Your task to perform on an android device: install app "Mercado Libre" Image 0: 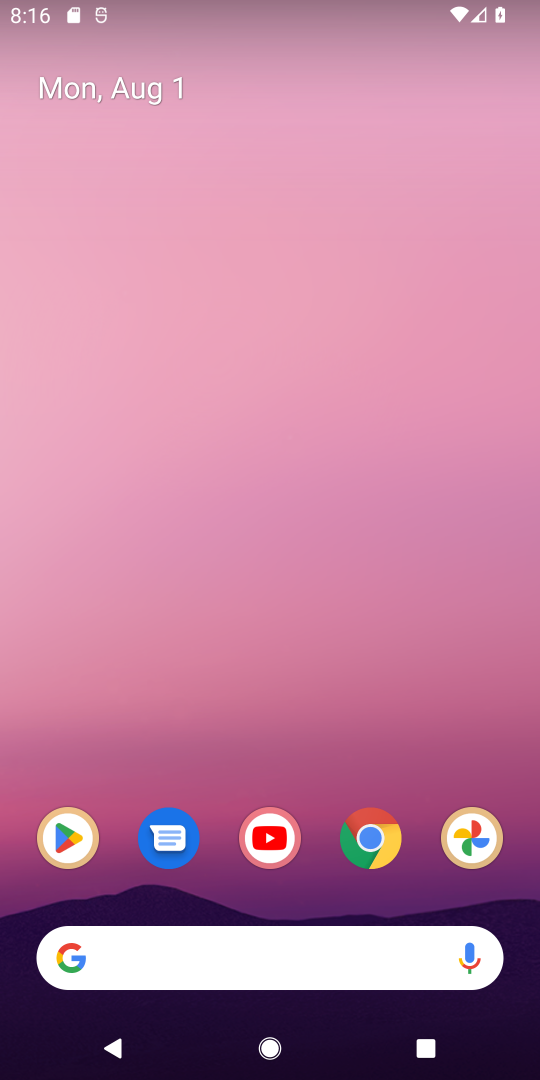
Step 0: press home button
Your task to perform on an android device: install app "Mercado Libre" Image 1: 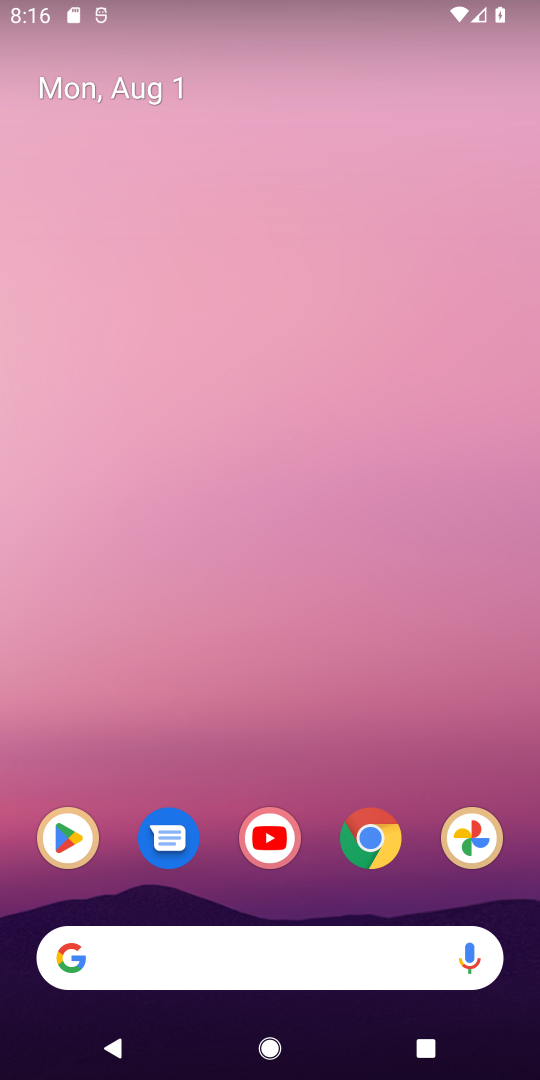
Step 1: click (80, 837)
Your task to perform on an android device: install app "Mercado Libre" Image 2: 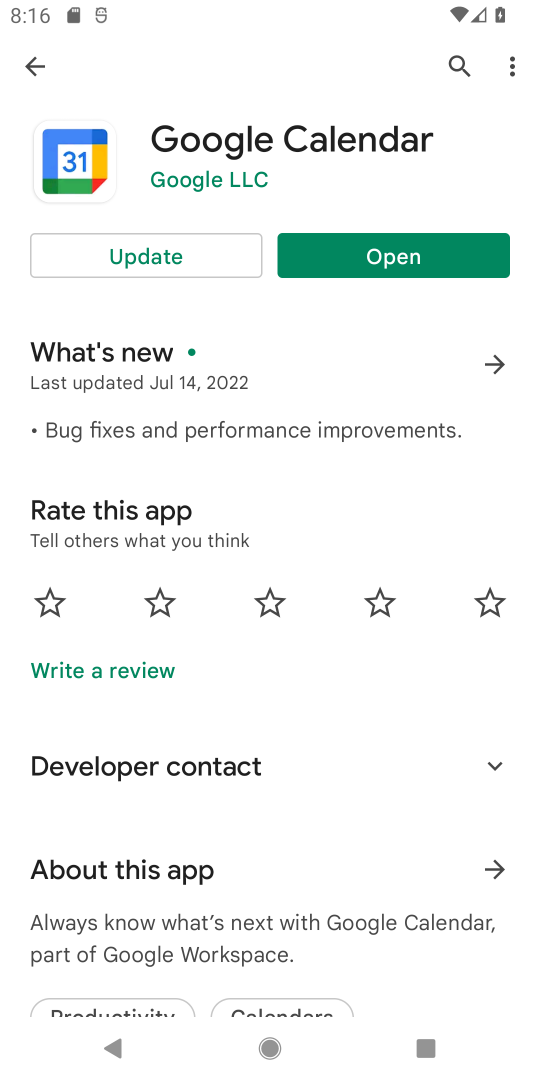
Step 2: click (434, 67)
Your task to perform on an android device: install app "Mercado Libre" Image 3: 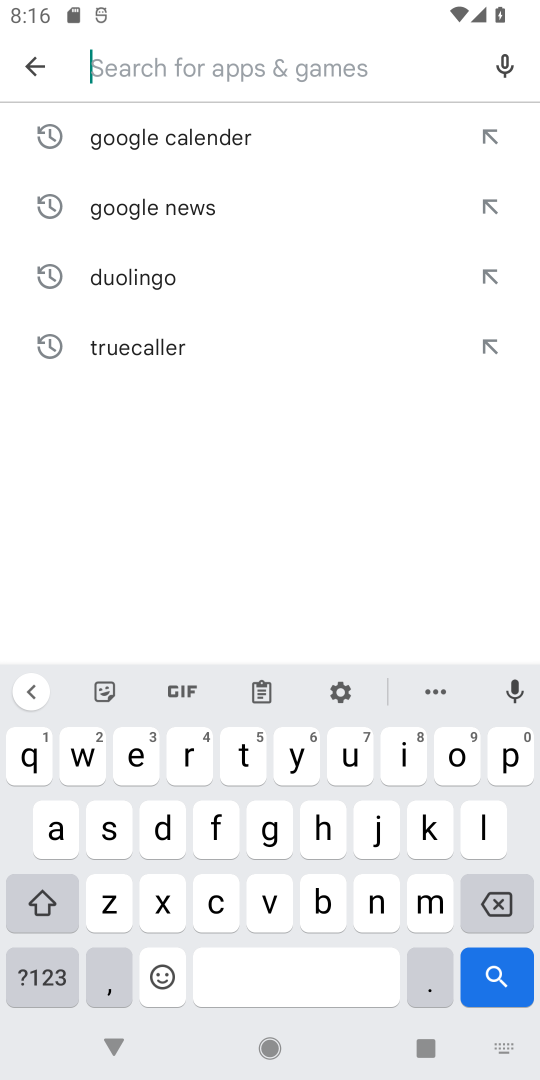
Step 3: type "mercado"
Your task to perform on an android device: install app "Mercado Libre" Image 4: 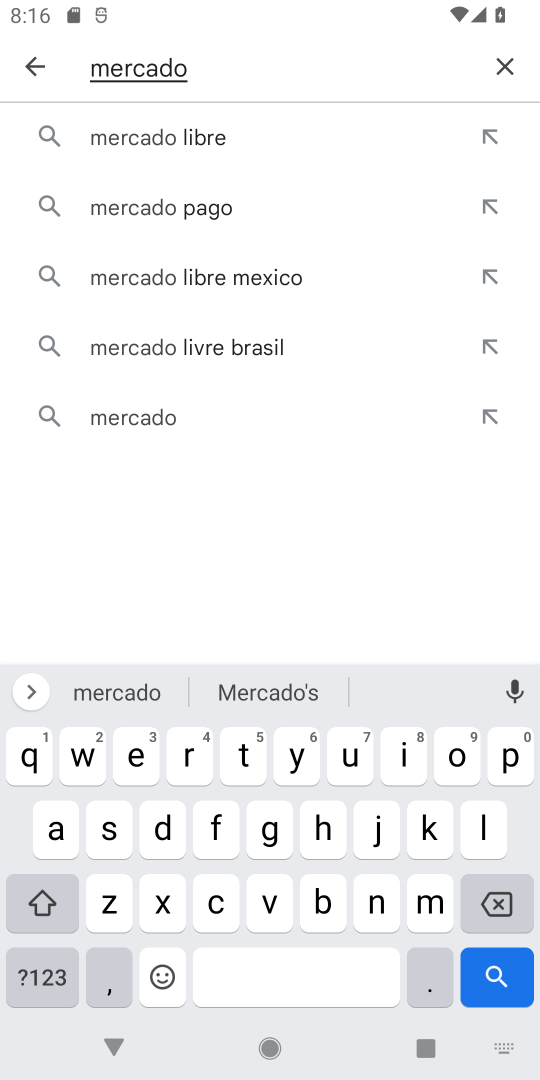
Step 4: click (173, 138)
Your task to perform on an android device: install app "Mercado Libre" Image 5: 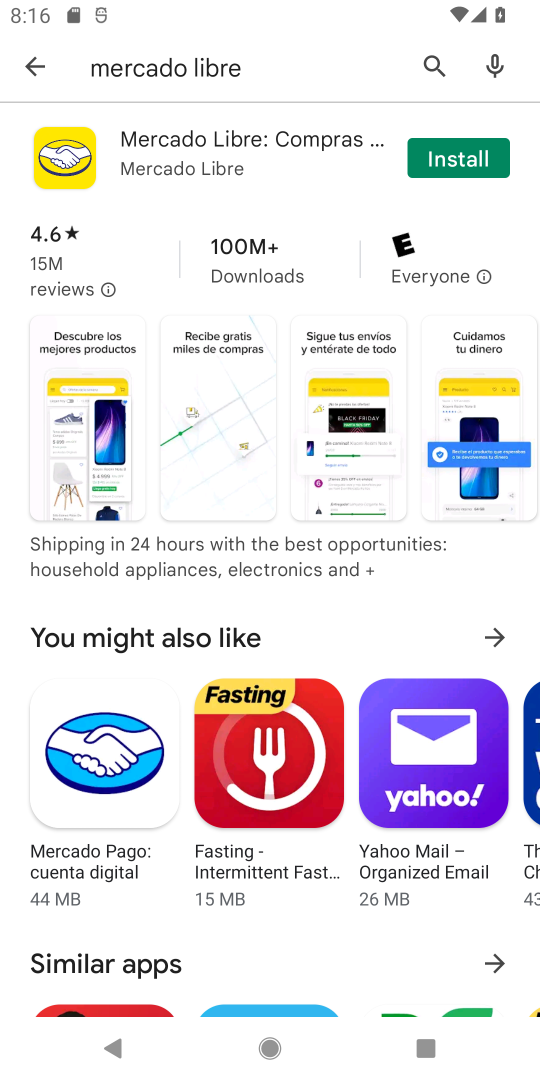
Step 5: click (449, 168)
Your task to perform on an android device: install app "Mercado Libre" Image 6: 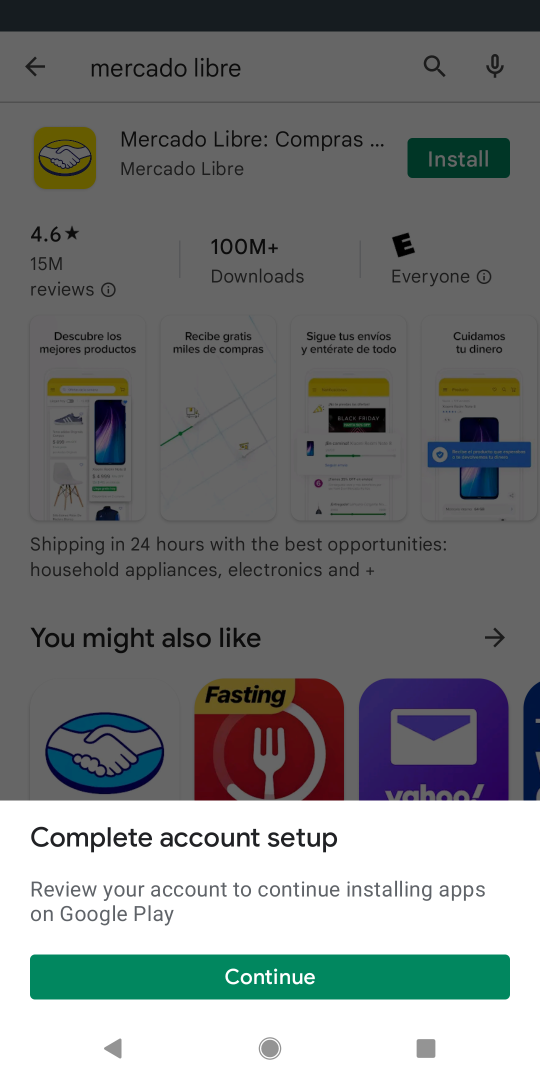
Step 6: click (278, 990)
Your task to perform on an android device: install app "Mercado Libre" Image 7: 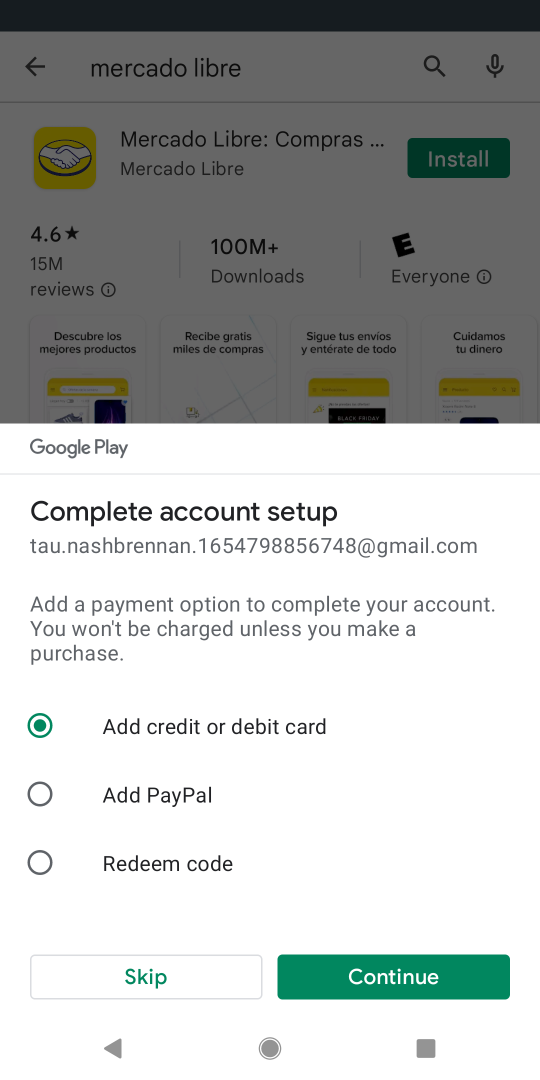
Step 7: click (158, 983)
Your task to perform on an android device: install app "Mercado Libre" Image 8: 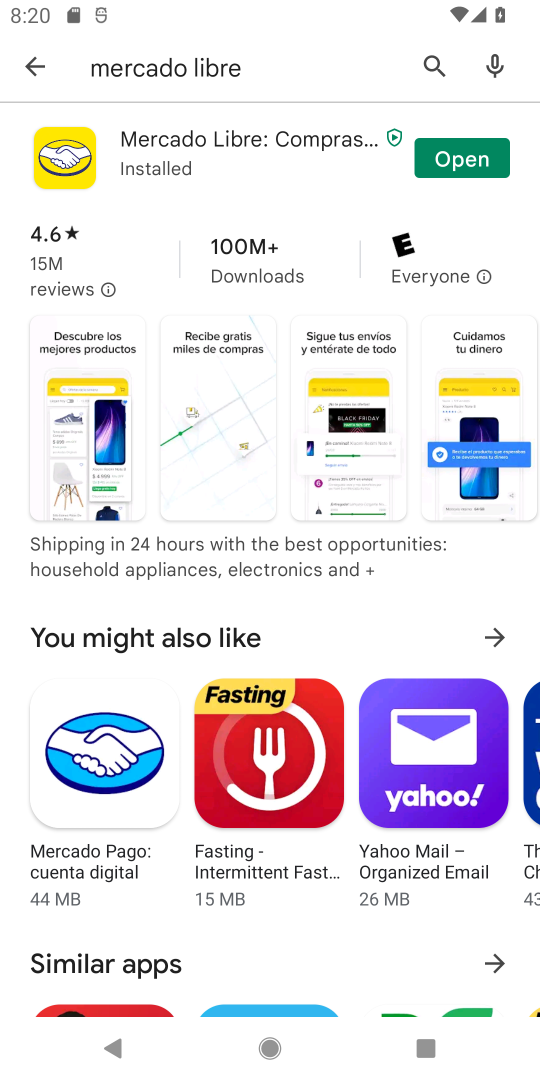
Step 8: task complete